Your task to perform on an android device: open wifi settings Image 0: 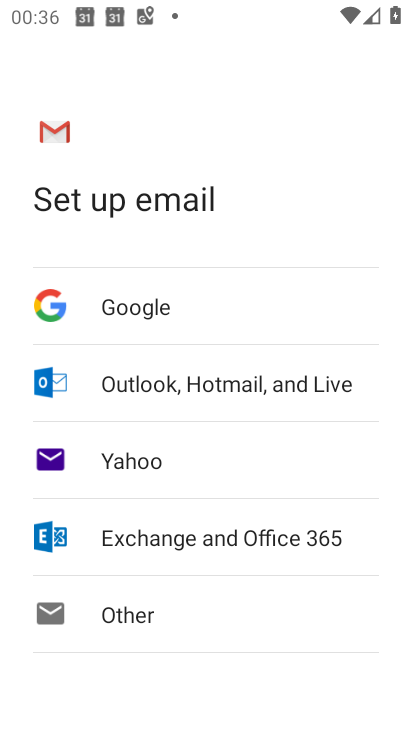
Step 0: press home button
Your task to perform on an android device: open wifi settings Image 1: 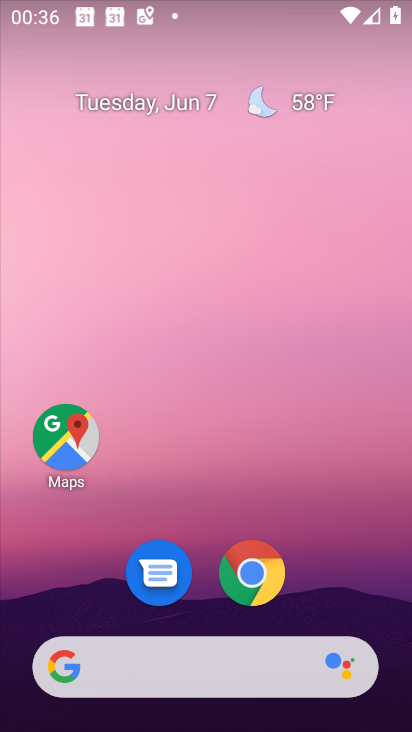
Step 1: drag from (342, 14) to (257, 413)
Your task to perform on an android device: open wifi settings Image 2: 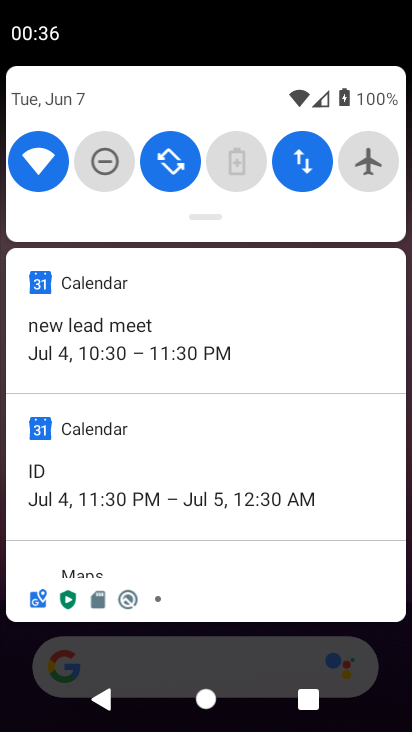
Step 2: click (63, 146)
Your task to perform on an android device: open wifi settings Image 3: 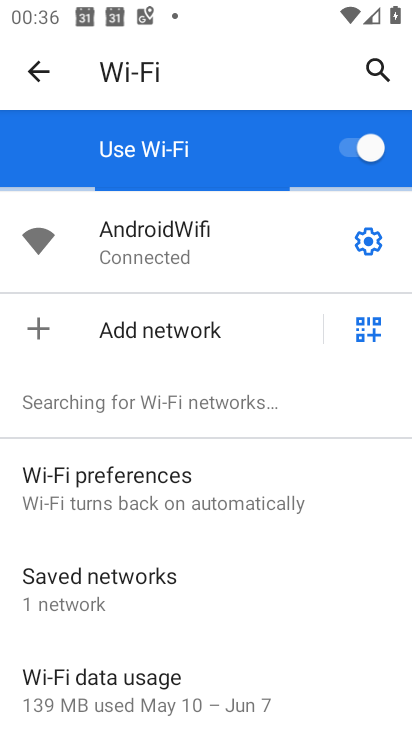
Step 3: task complete